Your task to perform on an android device: Show me the alarms in the clock app Image 0: 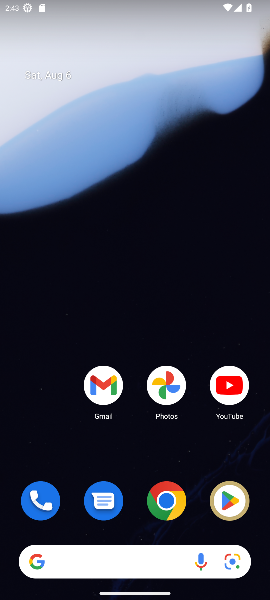
Step 0: drag from (168, 582) to (154, 88)
Your task to perform on an android device: Show me the alarms in the clock app Image 1: 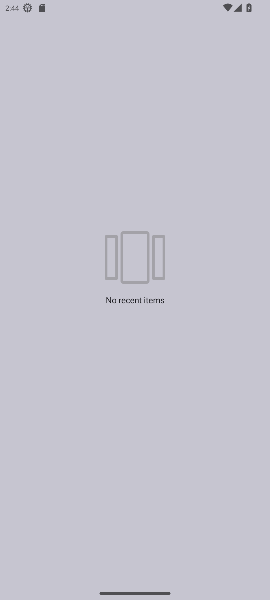
Step 1: press home button
Your task to perform on an android device: Show me the alarms in the clock app Image 2: 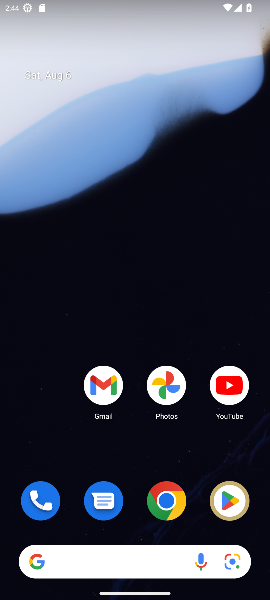
Step 2: drag from (50, 578) to (159, 143)
Your task to perform on an android device: Show me the alarms in the clock app Image 3: 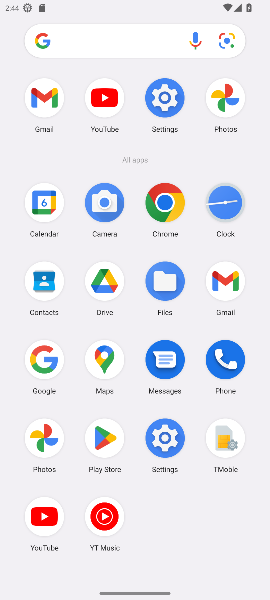
Step 3: click (225, 211)
Your task to perform on an android device: Show me the alarms in the clock app Image 4: 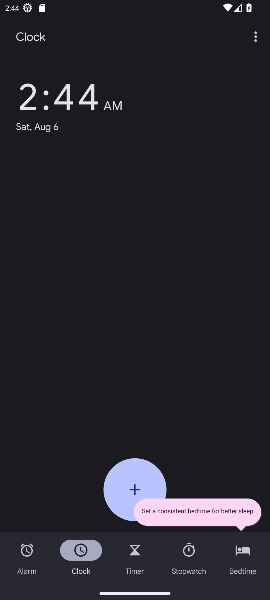
Step 4: click (33, 564)
Your task to perform on an android device: Show me the alarms in the clock app Image 5: 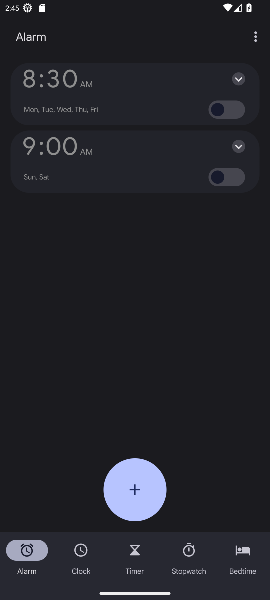
Step 5: task complete